Your task to perform on an android device: What's the weather going to be tomorrow? Image 0: 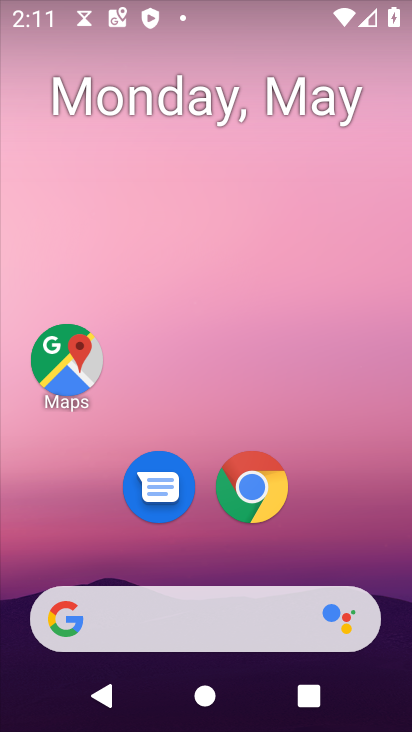
Step 0: drag from (375, 539) to (268, 2)
Your task to perform on an android device: What's the weather going to be tomorrow? Image 1: 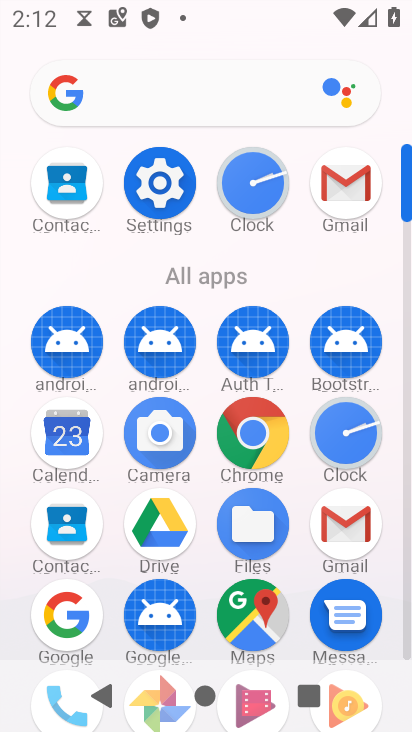
Step 1: click (230, 427)
Your task to perform on an android device: What's the weather going to be tomorrow? Image 2: 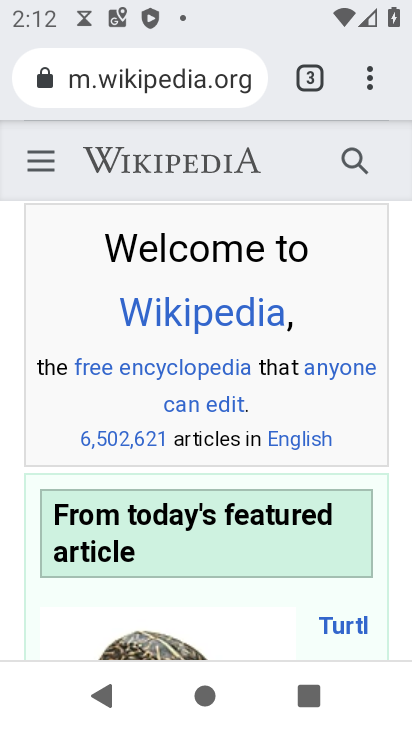
Step 2: drag from (217, 730) to (403, 653)
Your task to perform on an android device: What's the weather going to be tomorrow? Image 3: 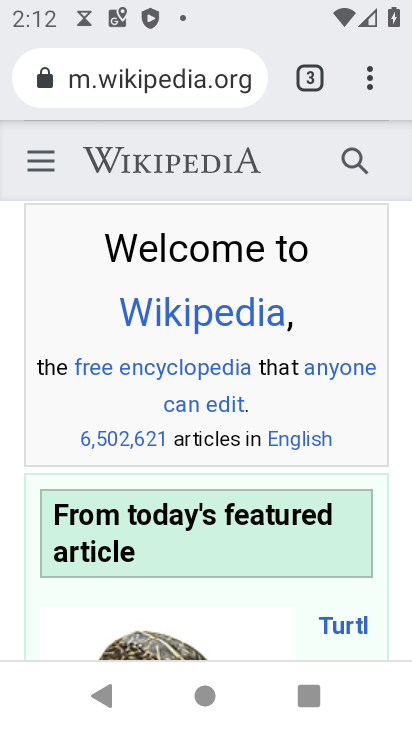
Step 3: click (178, 82)
Your task to perform on an android device: What's the weather going to be tomorrow? Image 4: 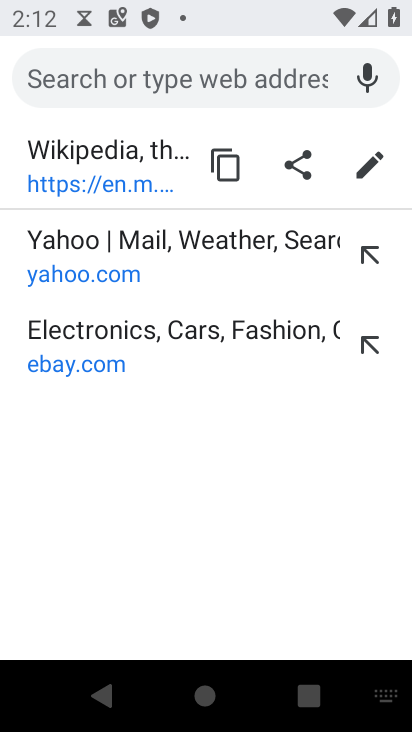
Step 4: type "What's the weather going to be tomorrow?"
Your task to perform on an android device: What's the weather going to be tomorrow? Image 5: 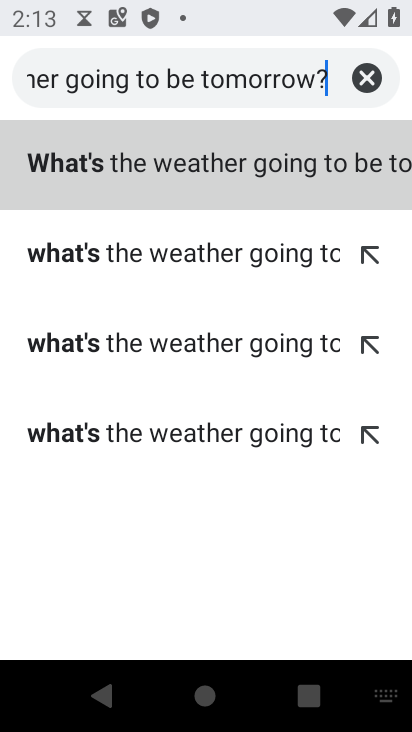
Step 5: click (374, 169)
Your task to perform on an android device: What's the weather going to be tomorrow? Image 6: 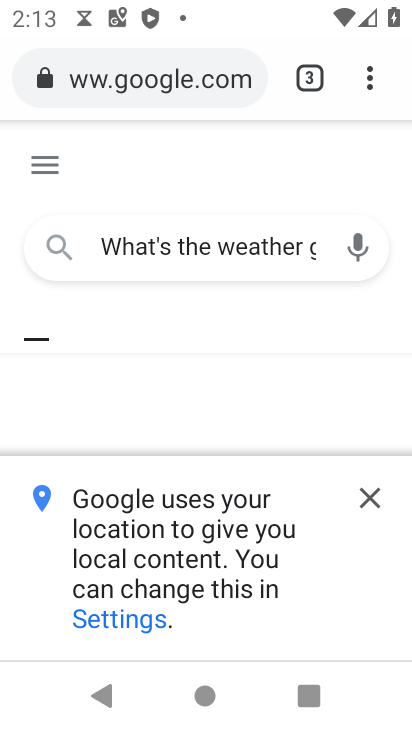
Step 6: click (378, 497)
Your task to perform on an android device: What's the weather going to be tomorrow? Image 7: 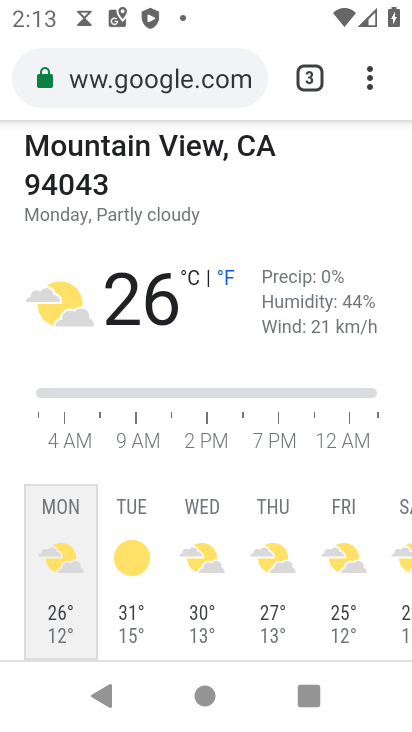
Step 7: click (140, 551)
Your task to perform on an android device: What's the weather going to be tomorrow? Image 8: 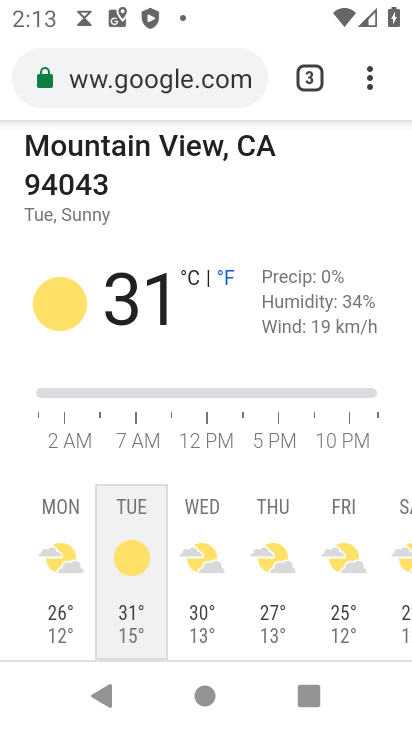
Step 8: task complete